Your task to perform on an android device: make emails show in primary in the gmail app Image 0: 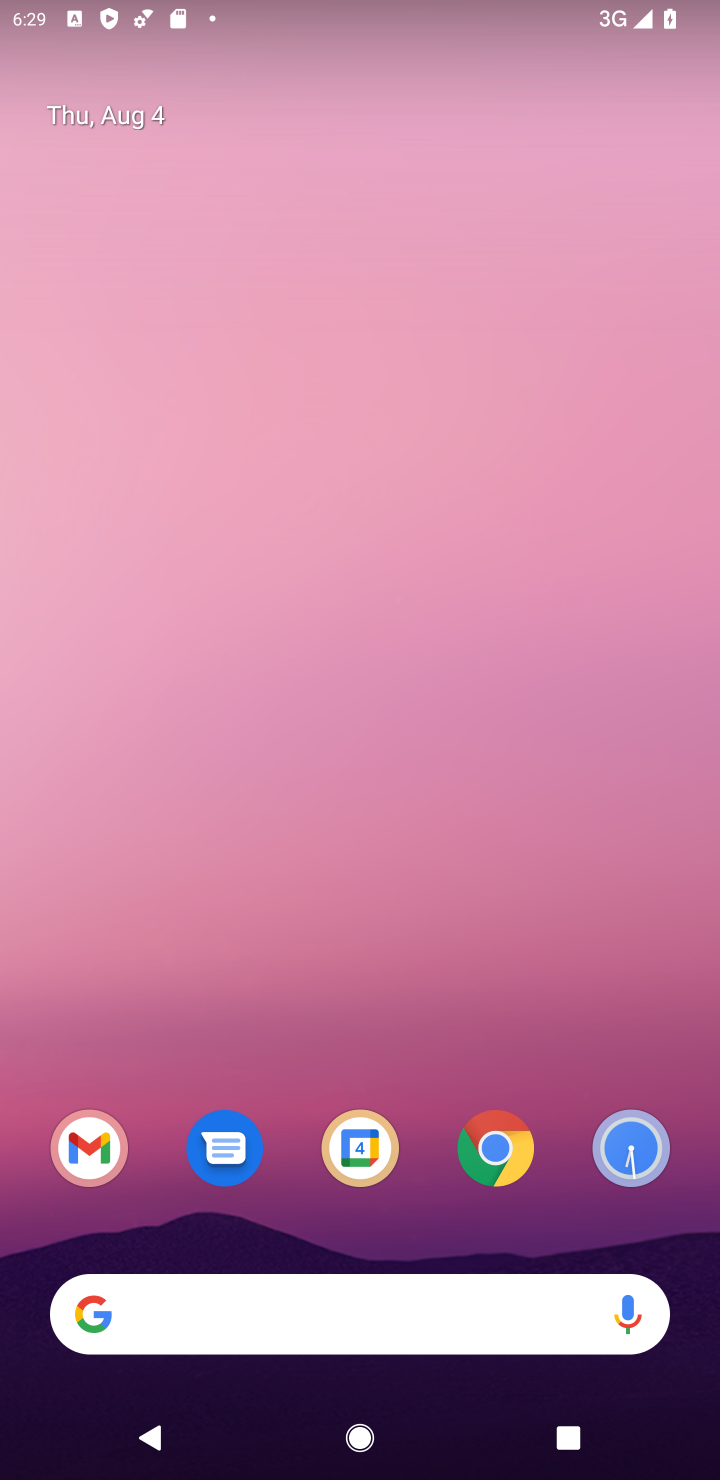
Step 0: click (90, 1148)
Your task to perform on an android device: make emails show in primary in the gmail app Image 1: 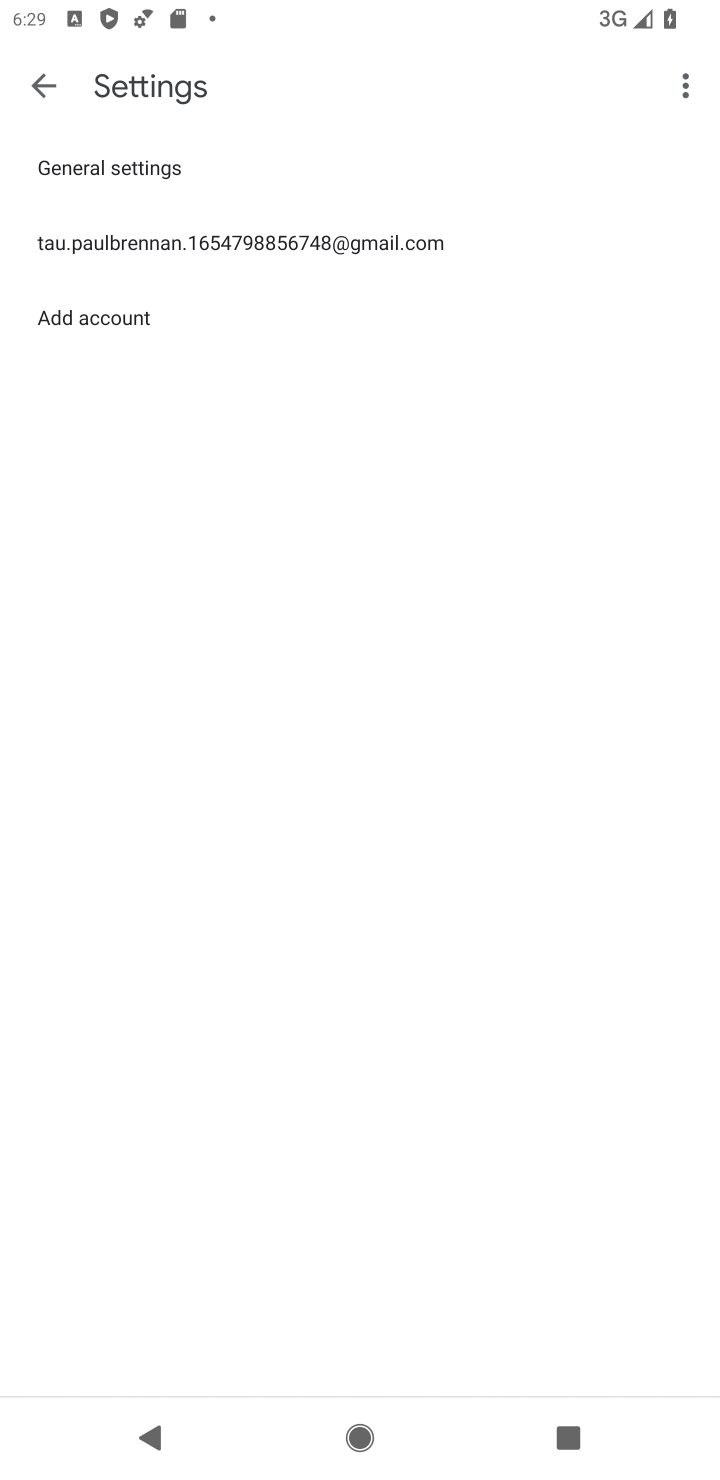
Step 1: click (166, 240)
Your task to perform on an android device: make emails show in primary in the gmail app Image 2: 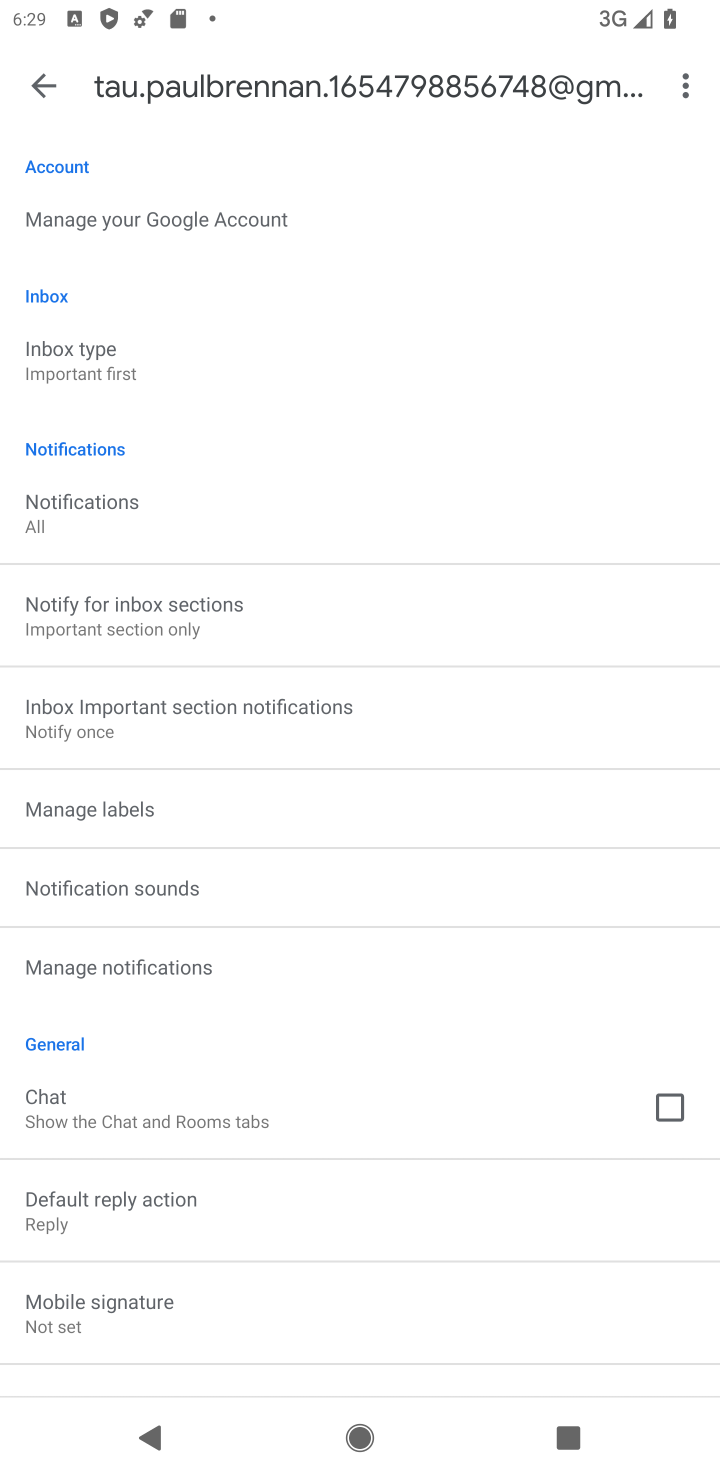
Step 2: click (80, 354)
Your task to perform on an android device: make emails show in primary in the gmail app Image 3: 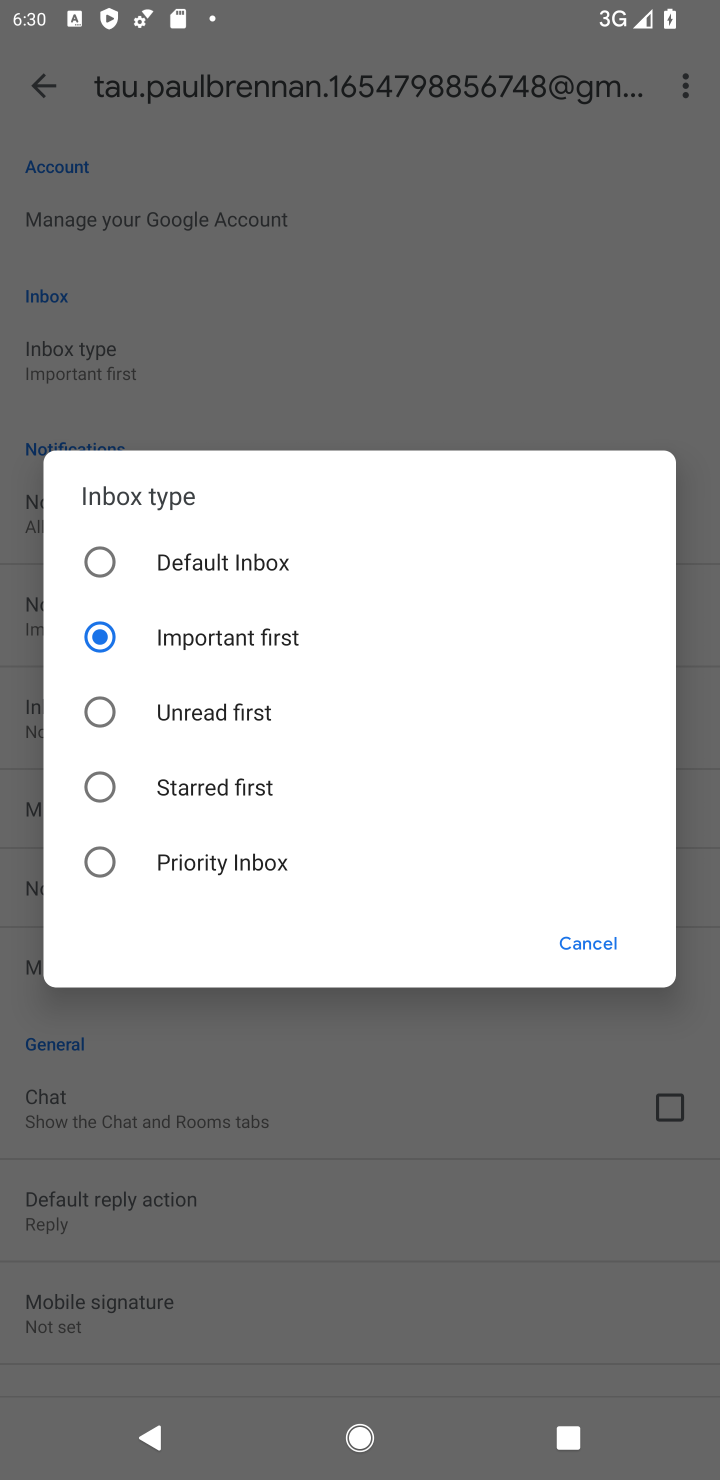
Step 3: click (94, 567)
Your task to perform on an android device: make emails show in primary in the gmail app Image 4: 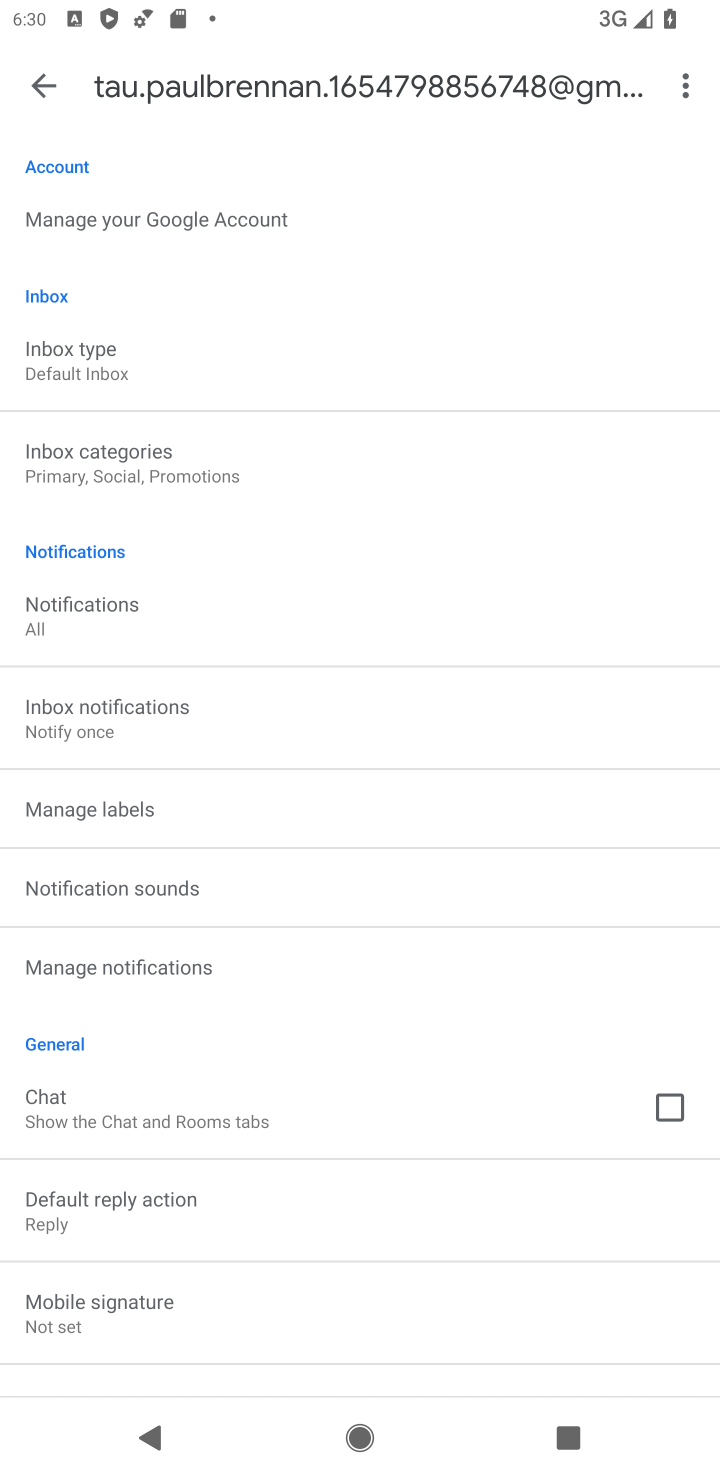
Step 4: click (89, 443)
Your task to perform on an android device: make emails show in primary in the gmail app Image 5: 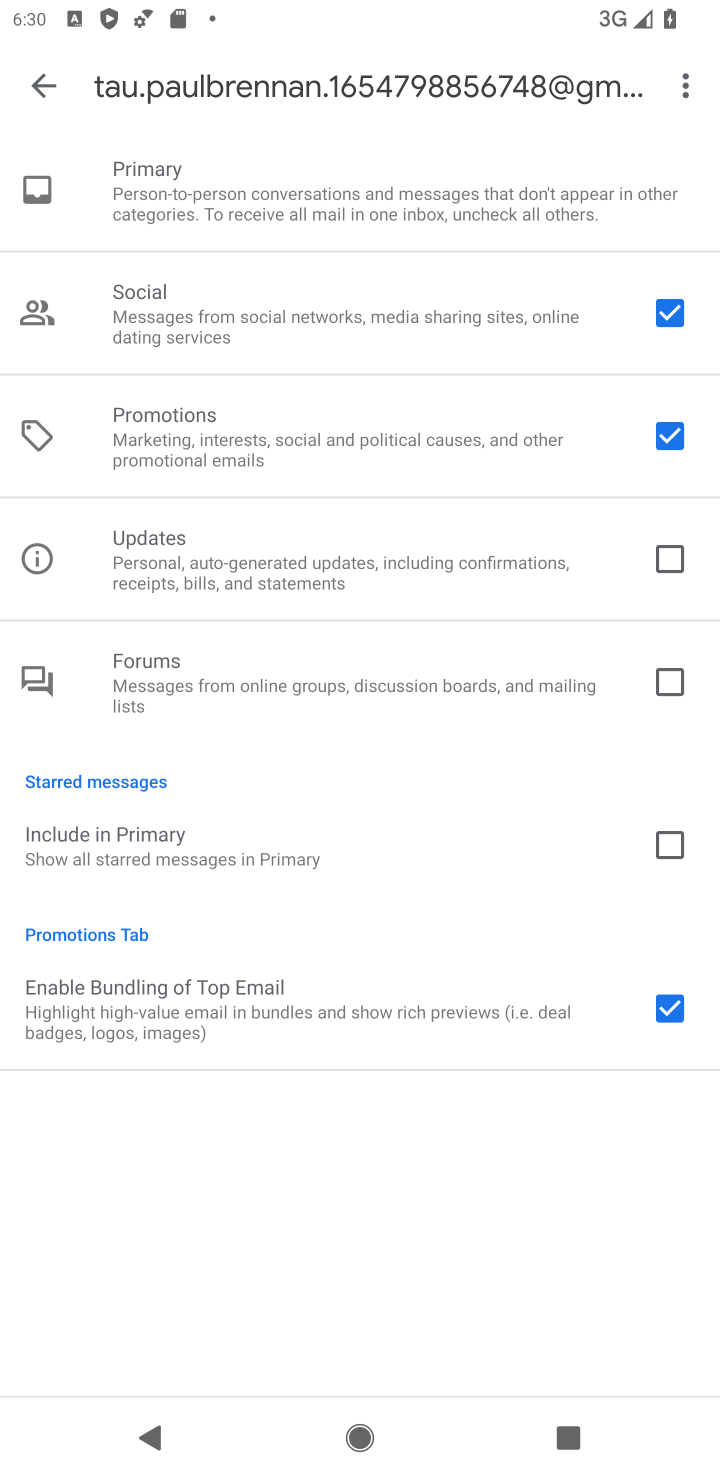
Step 5: click (669, 433)
Your task to perform on an android device: make emails show in primary in the gmail app Image 6: 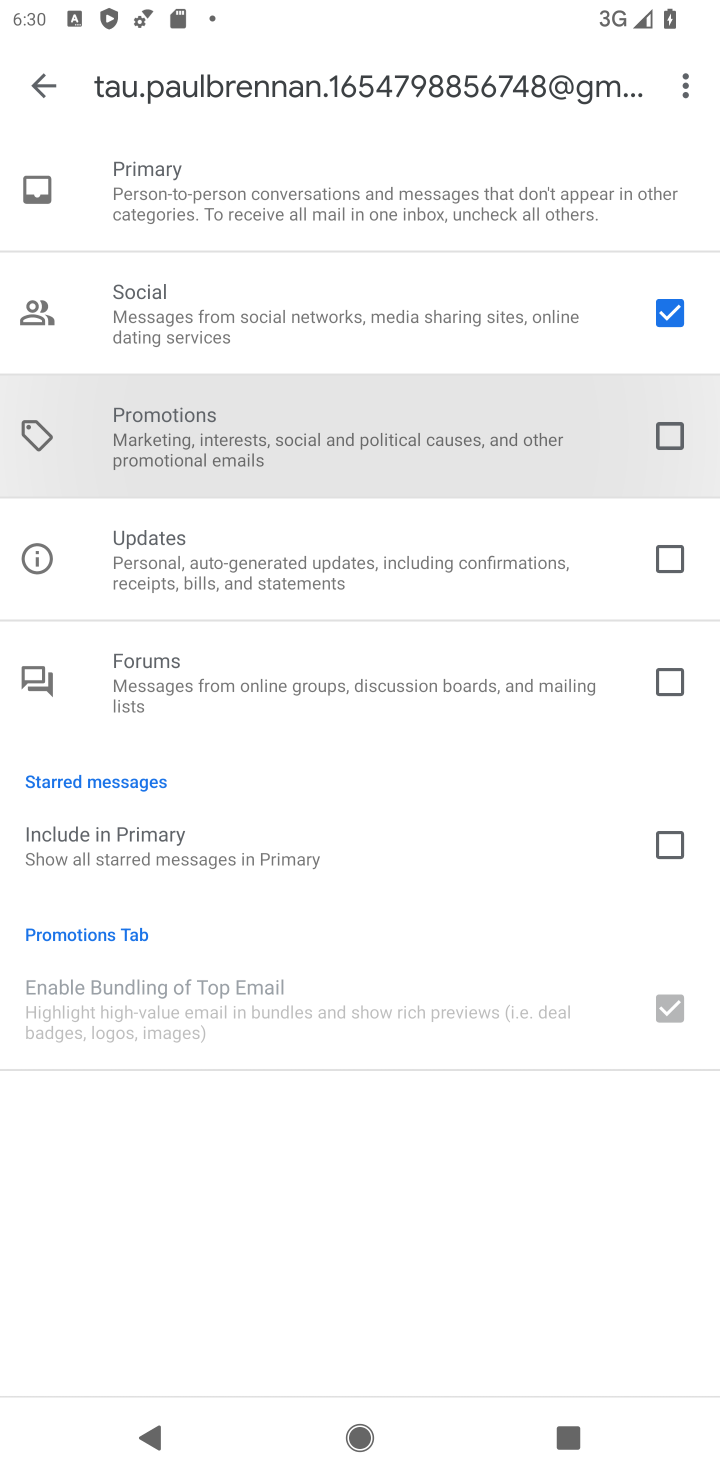
Step 6: click (671, 315)
Your task to perform on an android device: make emails show in primary in the gmail app Image 7: 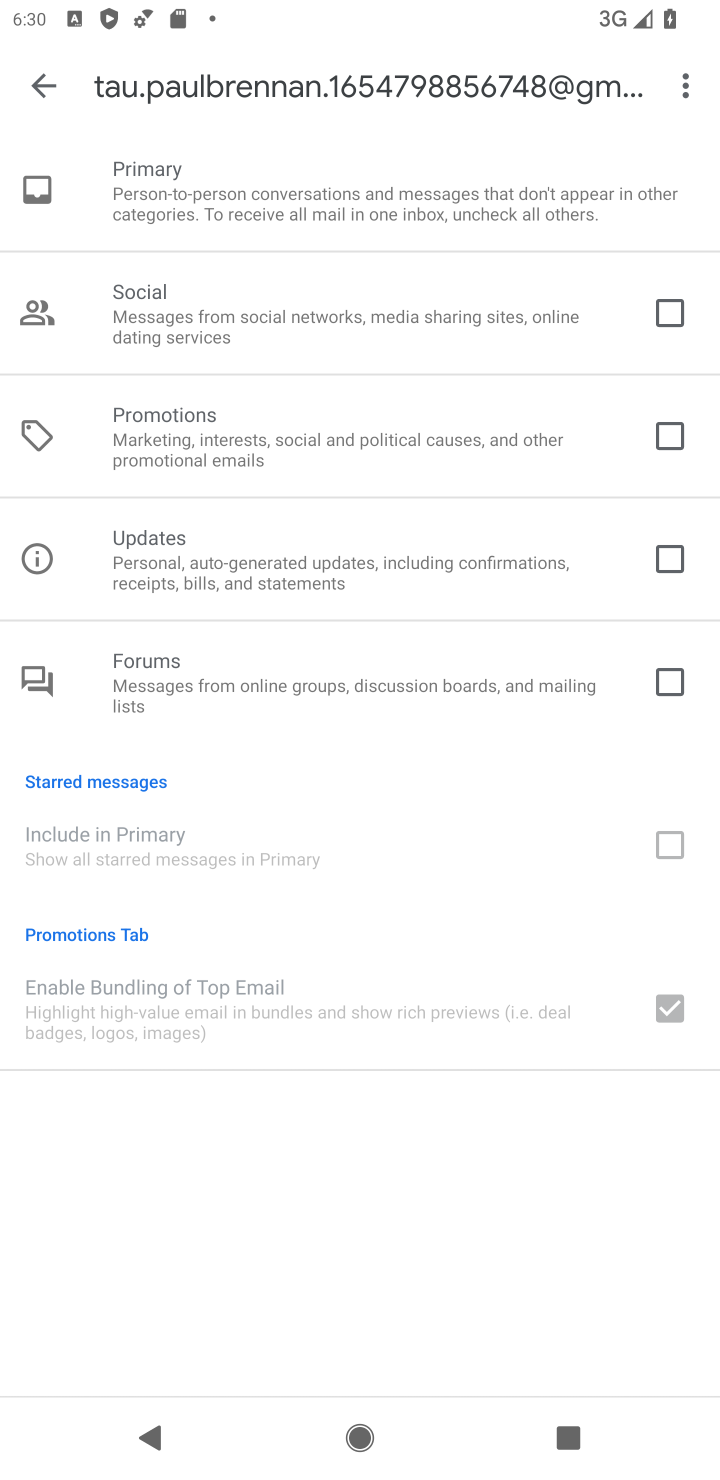
Step 7: task complete